Your task to perform on an android device: Do I have any events today? Image 0: 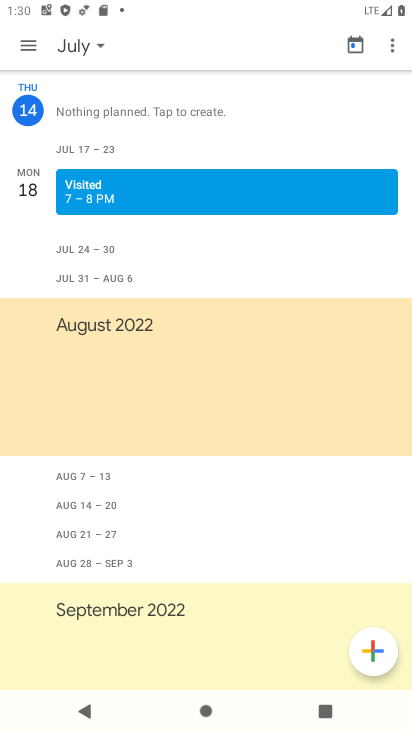
Step 0: press home button
Your task to perform on an android device: Do I have any events today? Image 1: 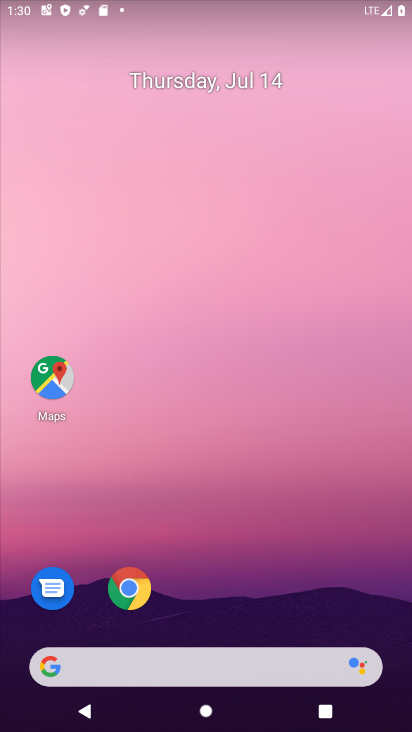
Step 1: drag from (257, 577) to (221, 75)
Your task to perform on an android device: Do I have any events today? Image 2: 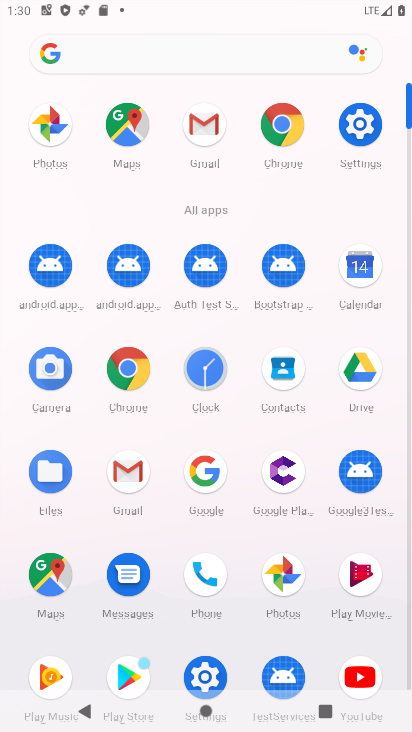
Step 2: click (352, 262)
Your task to perform on an android device: Do I have any events today? Image 3: 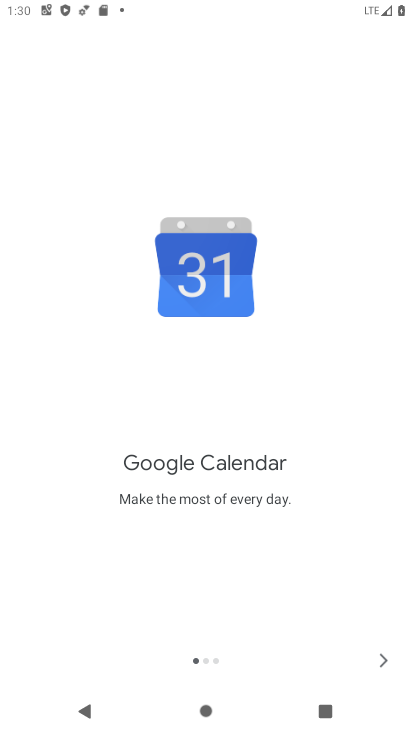
Step 3: click (380, 653)
Your task to perform on an android device: Do I have any events today? Image 4: 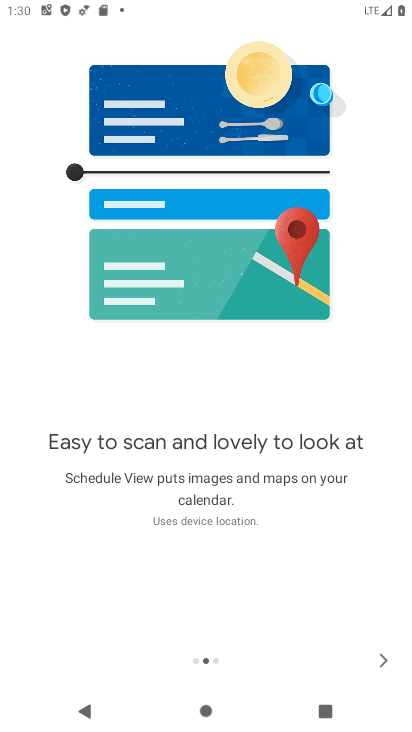
Step 4: click (380, 653)
Your task to perform on an android device: Do I have any events today? Image 5: 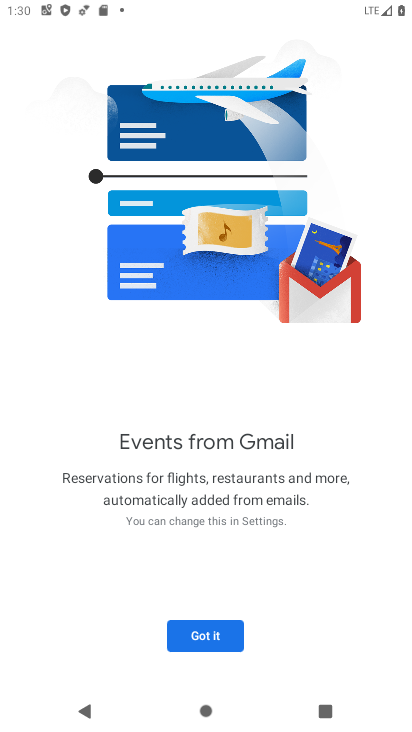
Step 5: click (232, 635)
Your task to perform on an android device: Do I have any events today? Image 6: 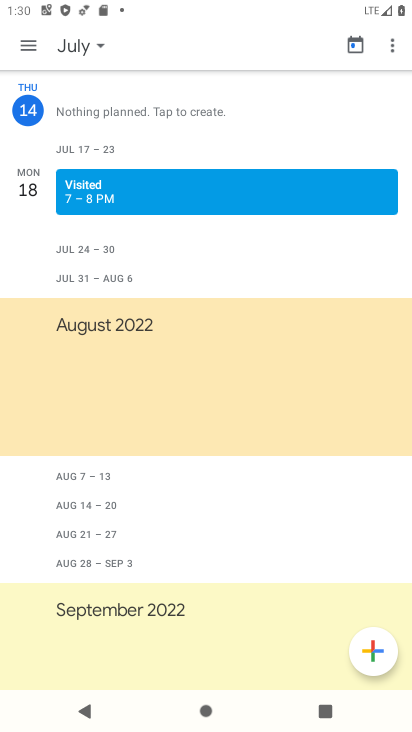
Step 6: click (83, 50)
Your task to perform on an android device: Do I have any events today? Image 7: 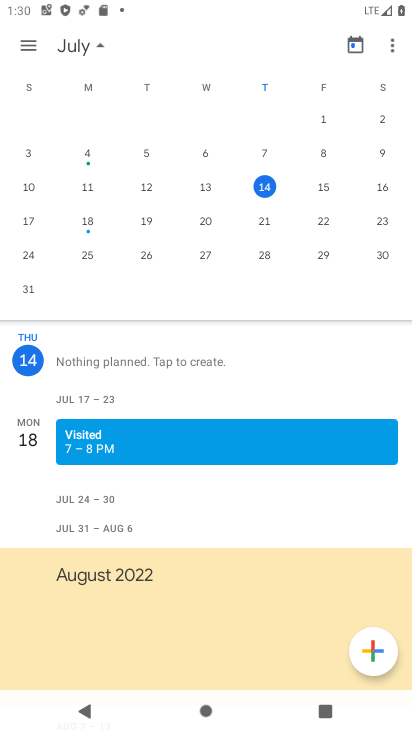
Step 7: click (262, 191)
Your task to perform on an android device: Do I have any events today? Image 8: 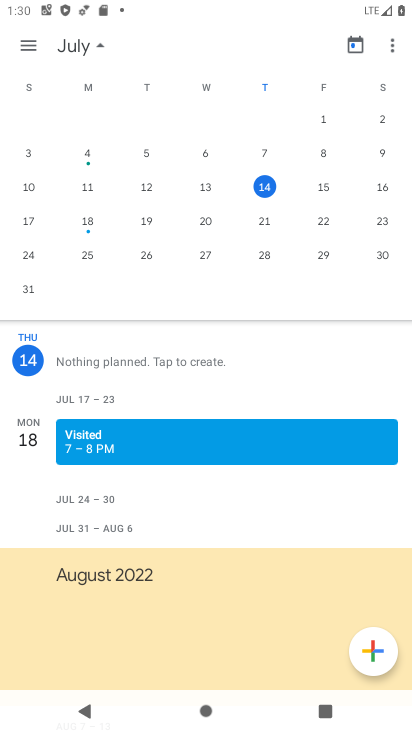
Step 8: task complete